Your task to perform on an android device: open app "Move to iOS" (install if not already installed) and enter user name: "Decca@icloud.com" and password: "reabbreviate" Image 0: 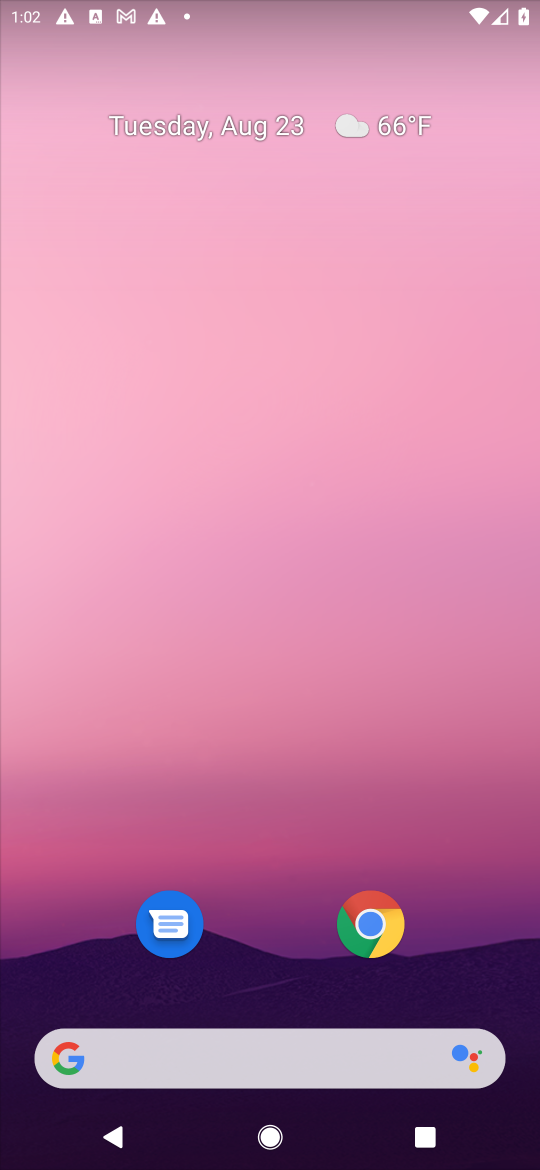
Step 0: drag from (469, 968) to (457, 196)
Your task to perform on an android device: open app "Move to iOS" (install if not already installed) and enter user name: "Decca@icloud.com" and password: "reabbreviate" Image 1: 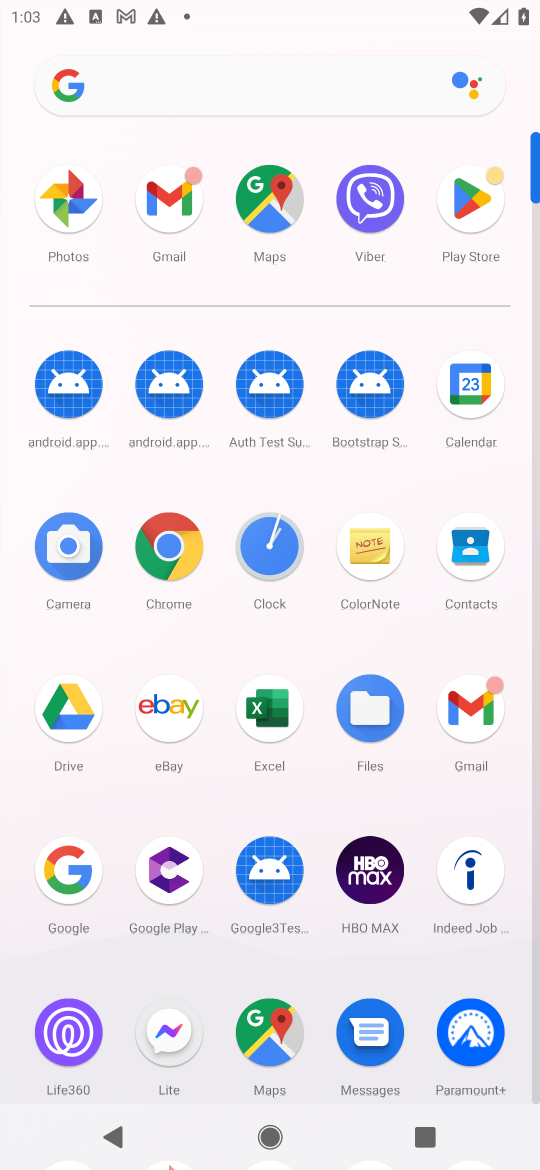
Step 1: click (473, 205)
Your task to perform on an android device: open app "Move to iOS" (install if not already installed) and enter user name: "Decca@icloud.com" and password: "reabbreviate" Image 2: 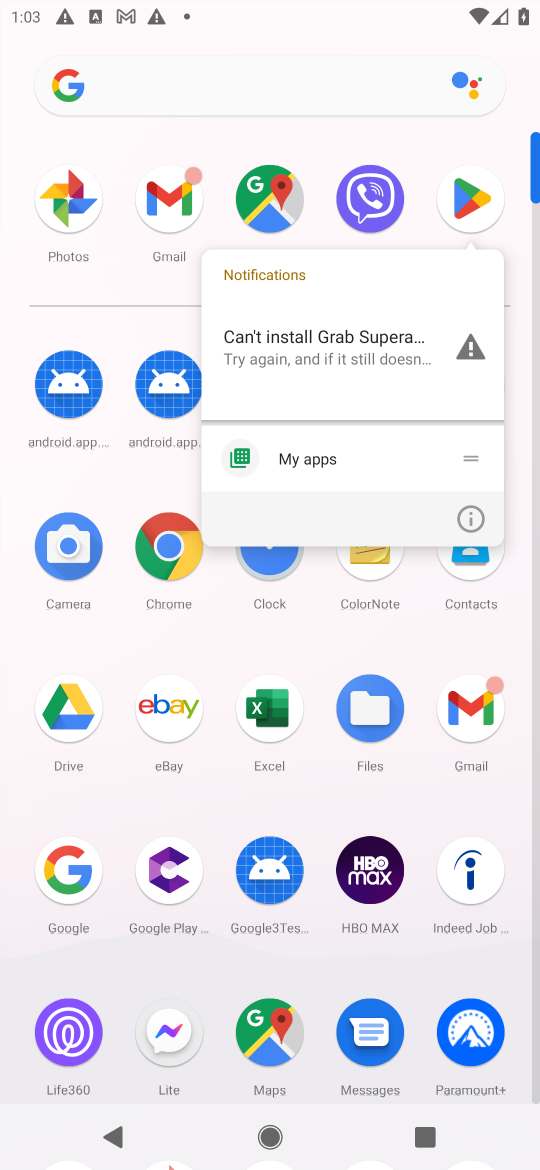
Step 2: click (470, 177)
Your task to perform on an android device: open app "Move to iOS" (install if not already installed) and enter user name: "Decca@icloud.com" and password: "reabbreviate" Image 3: 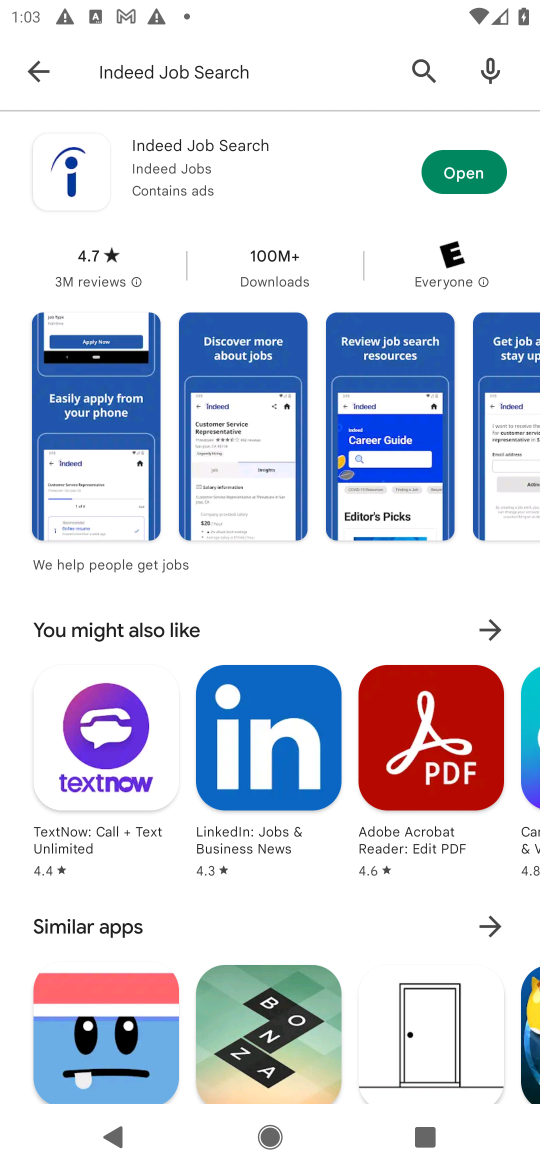
Step 3: press back button
Your task to perform on an android device: open app "Move to iOS" (install if not already installed) and enter user name: "Decca@icloud.com" and password: "reabbreviate" Image 4: 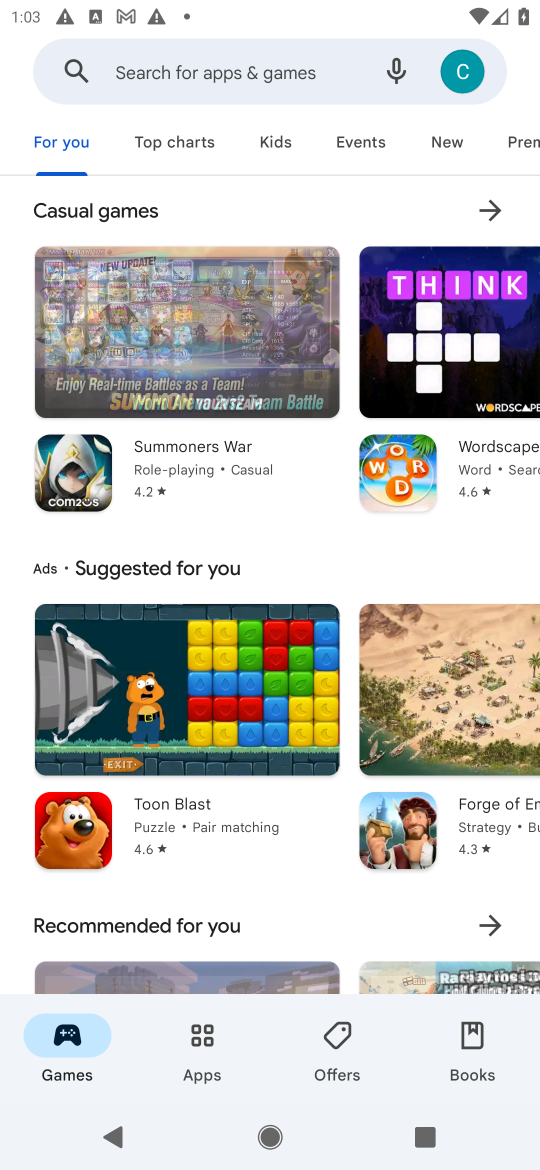
Step 4: click (239, 74)
Your task to perform on an android device: open app "Move to iOS" (install if not already installed) and enter user name: "Decca@icloud.com" and password: "reabbreviate" Image 5: 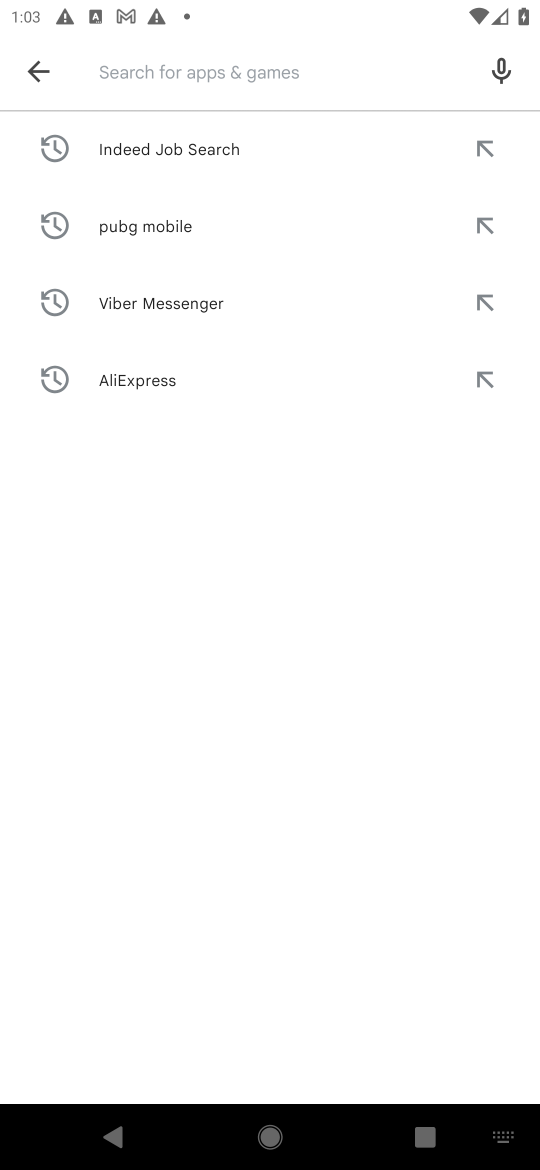
Step 5: type "Move to iOS"
Your task to perform on an android device: open app "Move to iOS" (install if not already installed) and enter user name: "Decca@icloud.com" and password: "reabbreviate" Image 6: 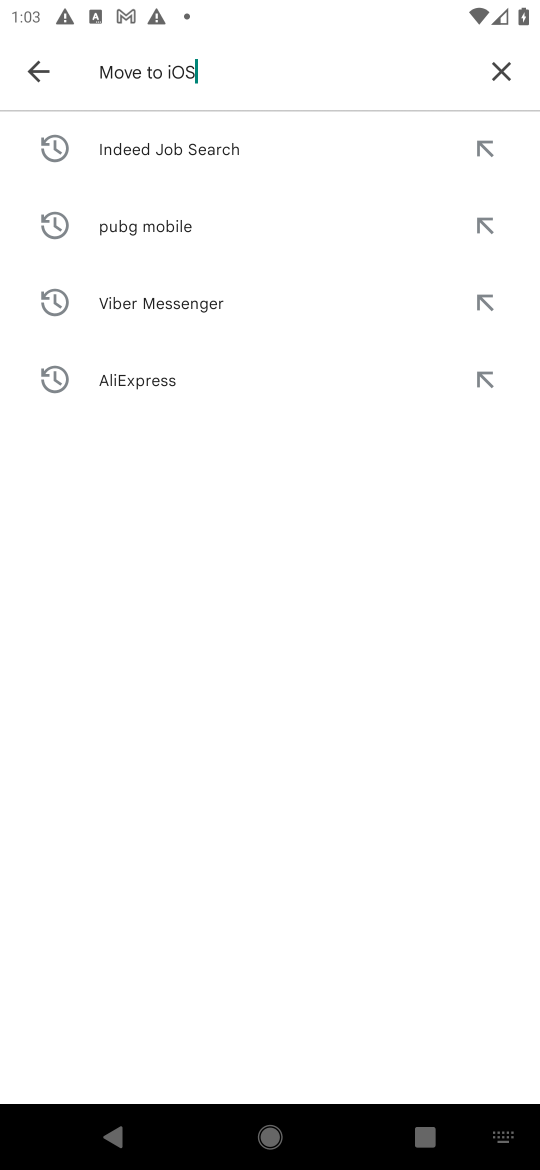
Step 6: press enter
Your task to perform on an android device: open app "Move to iOS" (install if not already installed) and enter user name: "Decca@icloud.com" and password: "reabbreviate" Image 7: 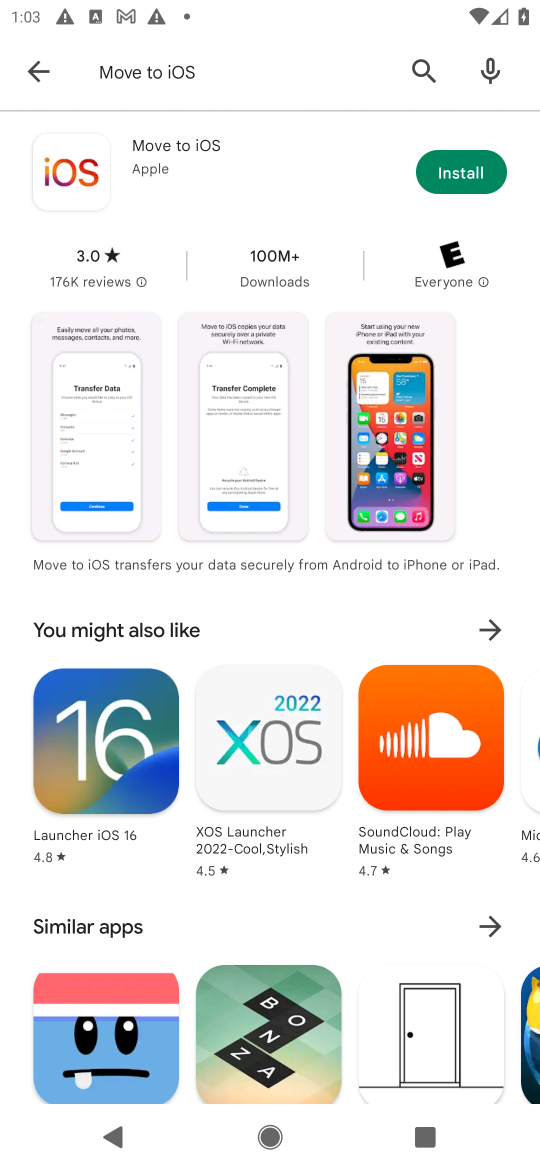
Step 7: click (452, 176)
Your task to perform on an android device: open app "Move to iOS" (install if not already installed) and enter user name: "Decca@icloud.com" and password: "reabbreviate" Image 8: 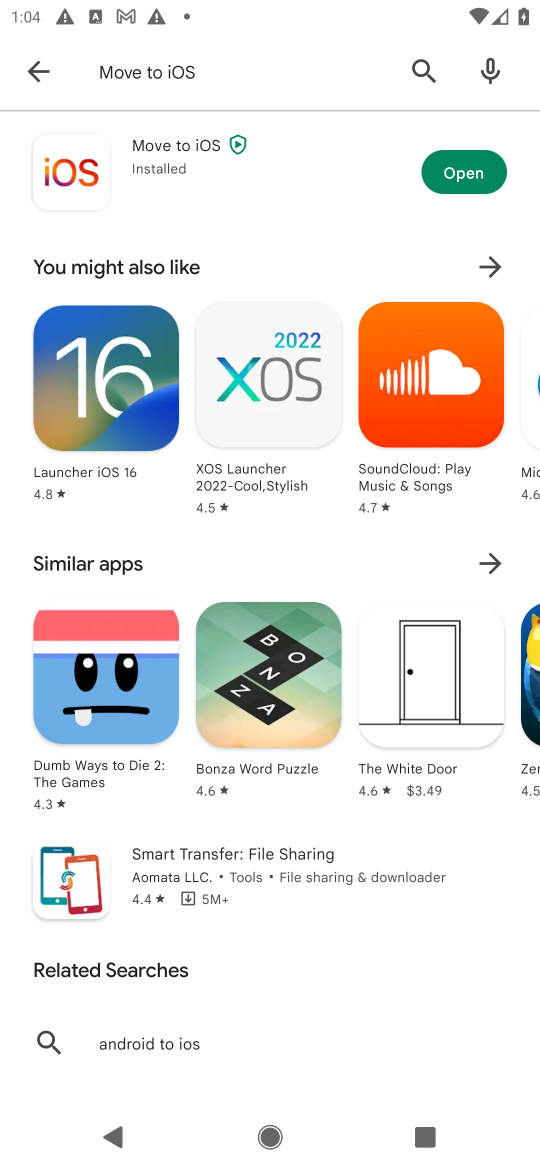
Step 8: click (479, 174)
Your task to perform on an android device: open app "Move to iOS" (install if not already installed) and enter user name: "Decca@icloud.com" and password: "reabbreviate" Image 9: 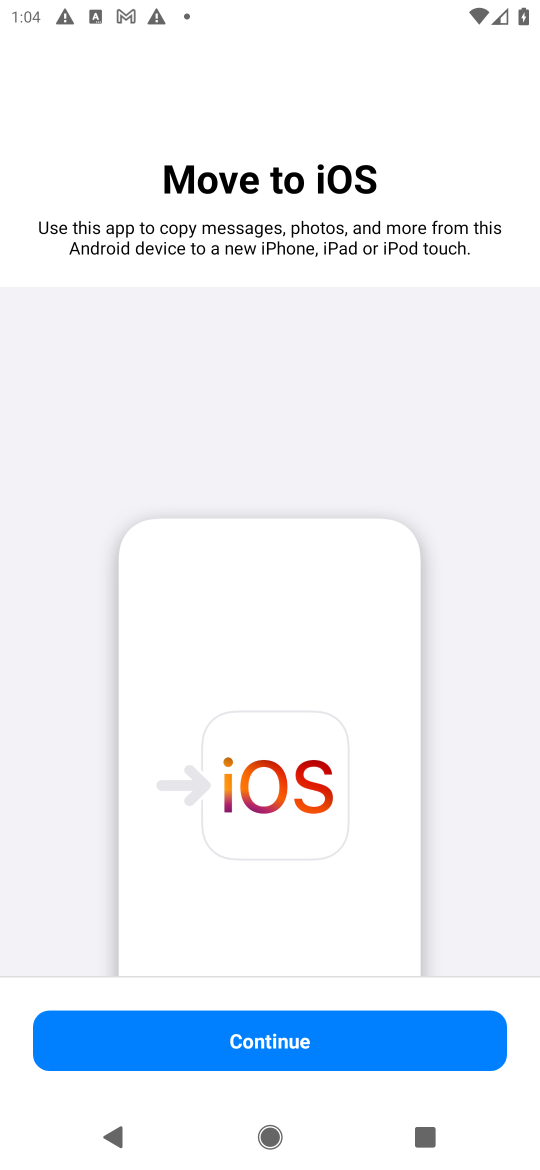
Step 9: click (370, 1038)
Your task to perform on an android device: open app "Move to iOS" (install if not already installed) and enter user name: "Decca@icloud.com" and password: "reabbreviate" Image 10: 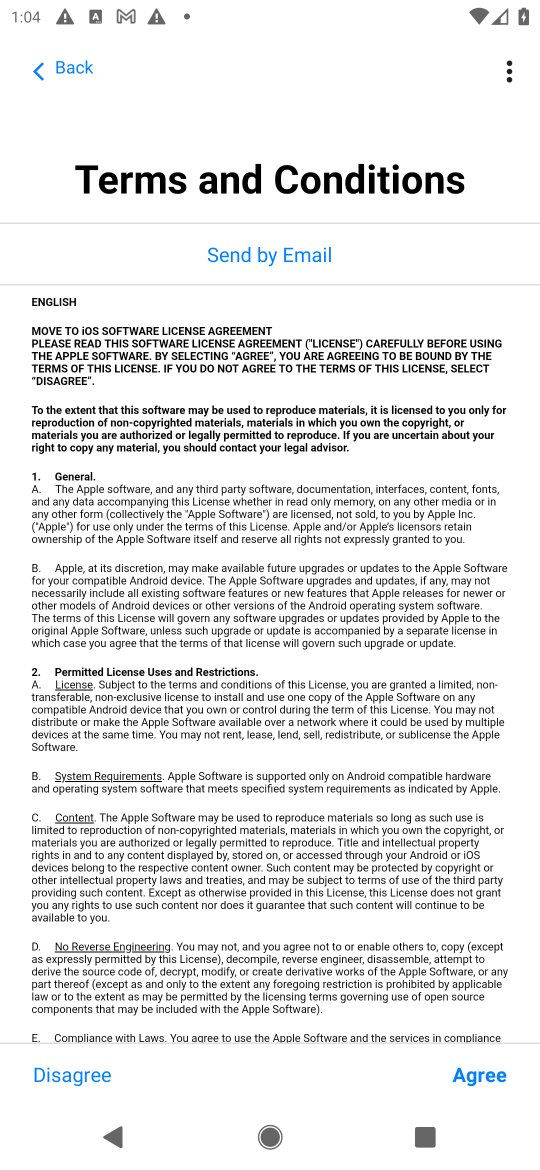
Step 10: click (476, 1073)
Your task to perform on an android device: open app "Move to iOS" (install if not already installed) and enter user name: "Decca@icloud.com" and password: "reabbreviate" Image 11: 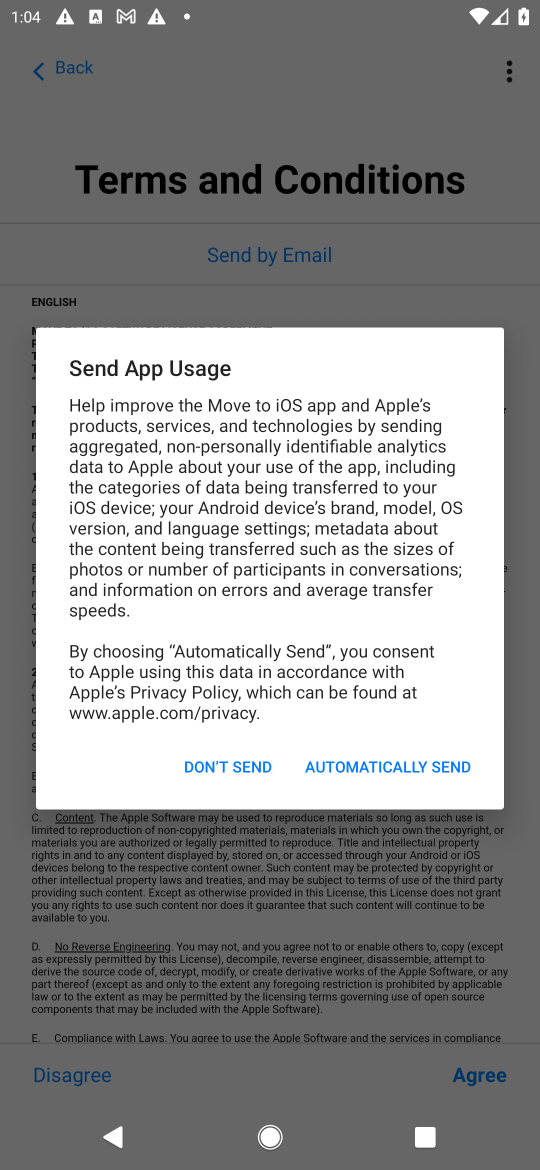
Step 11: click (237, 761)
Your task to perform on an android device: open app "Move to iOS" (install if not already installed) and enter user name: "Decca@icloud.com" and password: "reabbreviate" Image 12: 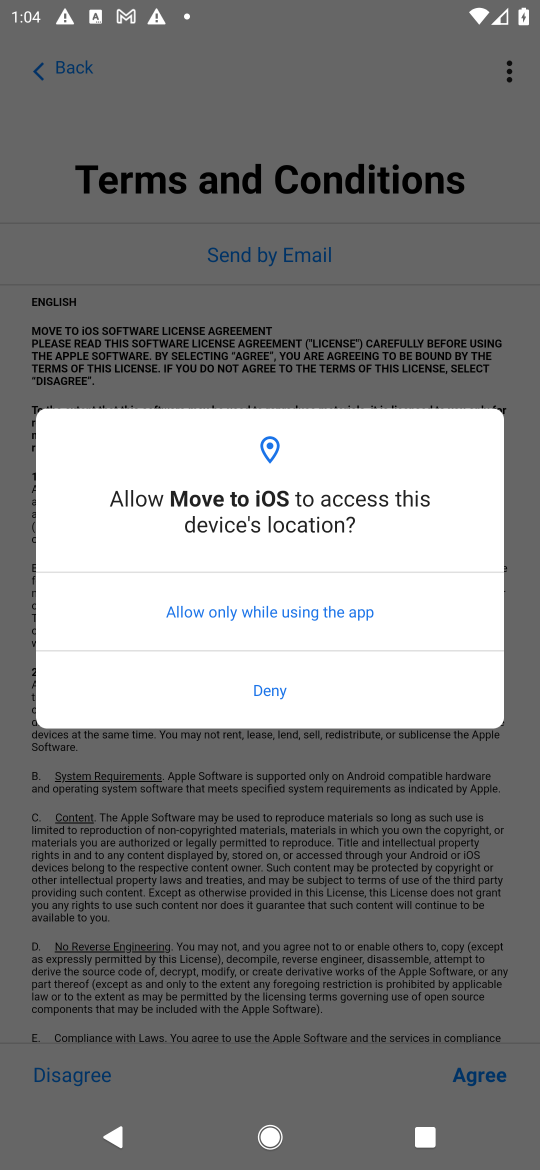
Step 12: click (301, 687)
Your task to perform on an android device: open app "Move to iOS" (install if not already installed) and enter user name: "Decca@icloud.com" and password: "reabbreviate" Image 13: 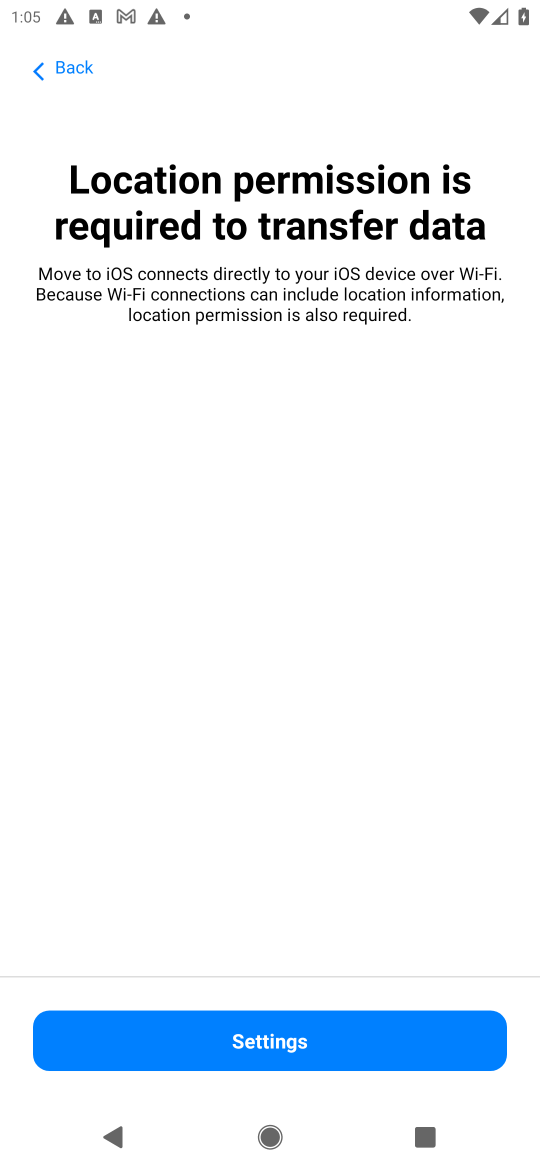
Step 13: task complete